Your task to perform on an android device: open a bookmark in the chrome app Image 0: 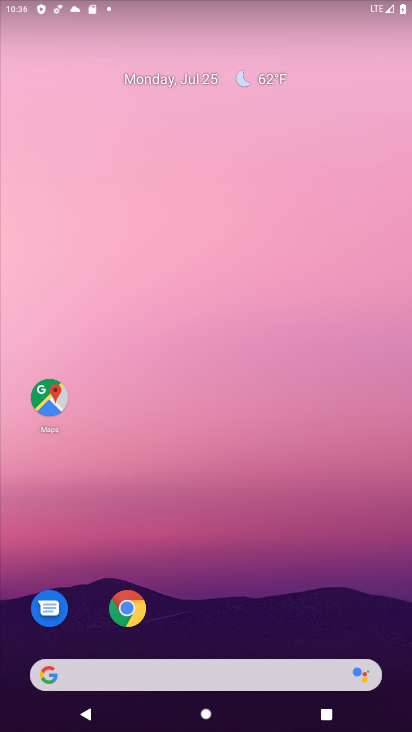
Step 0: click (135, 610)
Your task to perform on an android device: open a bookmark in the chrome app Image 1: 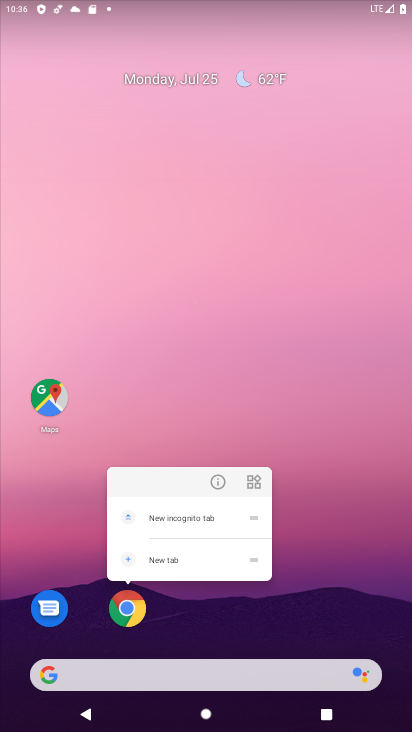
Step 1: click (141, 609)
Your task to perform on an android device: open a bookmark in the chrome app Image 2: 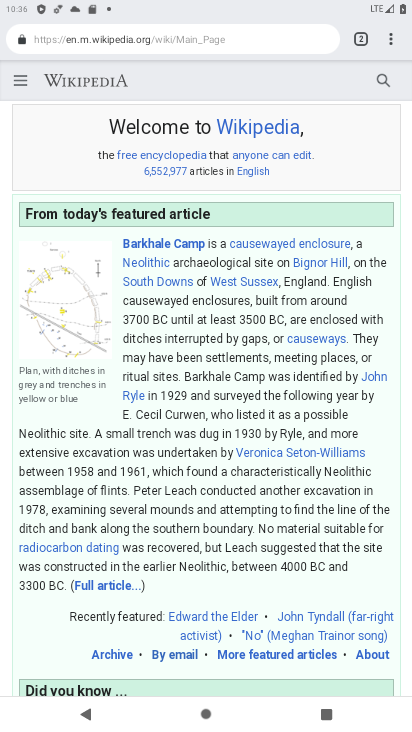
Step 2: click (390, 49)
Your task to perform on an android device: open a bookmark in the chrome app Image 3: 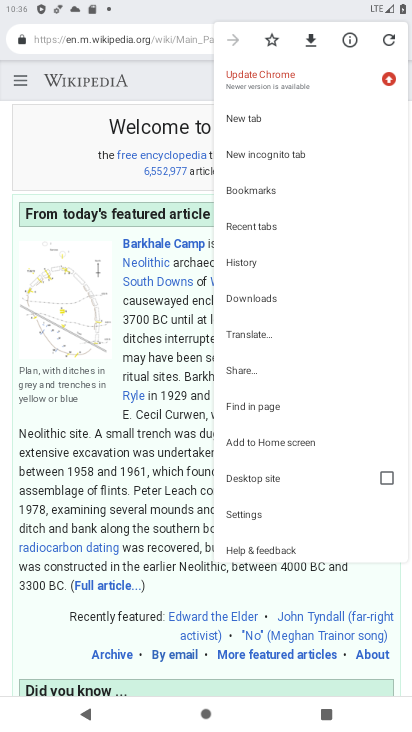
Step 3: click (268, 194)
Your task to perform on an android device: open a bookmark in the chrome app Image 4: 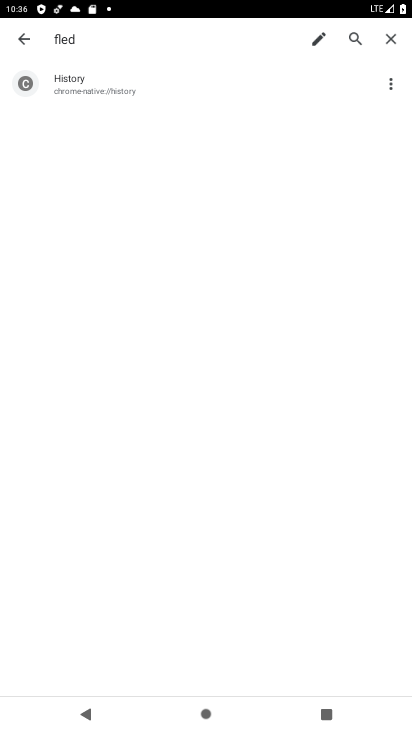
Step 4: click (23, 31)
Your task to perform on an android device: open a bookmark in the chrome app Image 5: 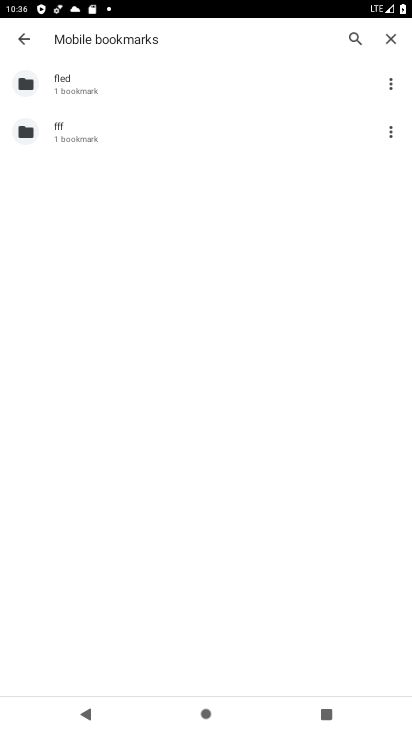
Step 5: click (102, 129)
Your task to perform on an android device: open a bookmark in the chrome app Image 6: 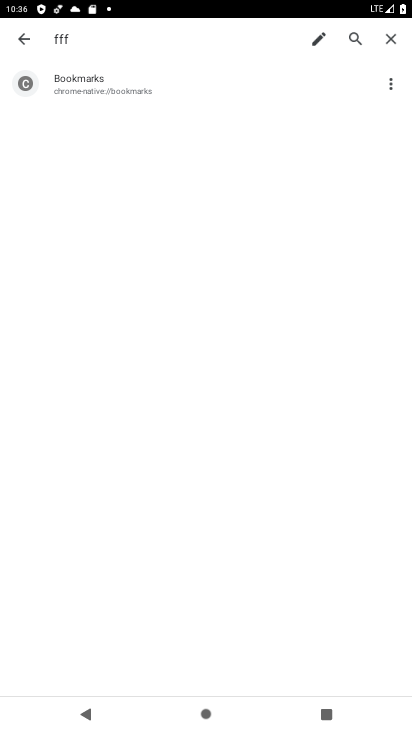
Step 6: click (125, 82)
Your task to perform on an android device: open a bookmark in the chrome app Image 7: 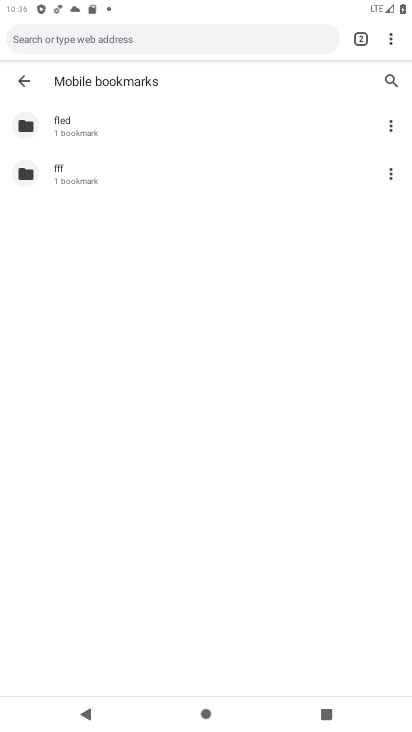
Step 7: click (91, 133)
Your task to perform on an android device: open a bookmark in the chrome app Image 8: 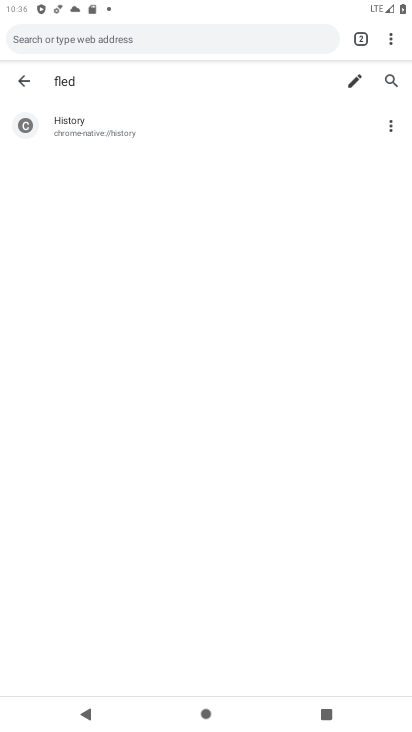
Step 8: click (86, 143)
Your task to perform on an android device: open a bookmark in the chrome app Image 9: 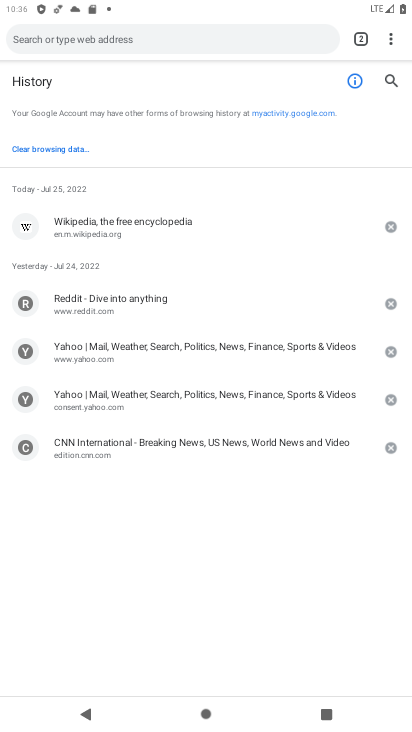
Step 9: task complete